Your task to perform on an android device: show emergency info Image 0: 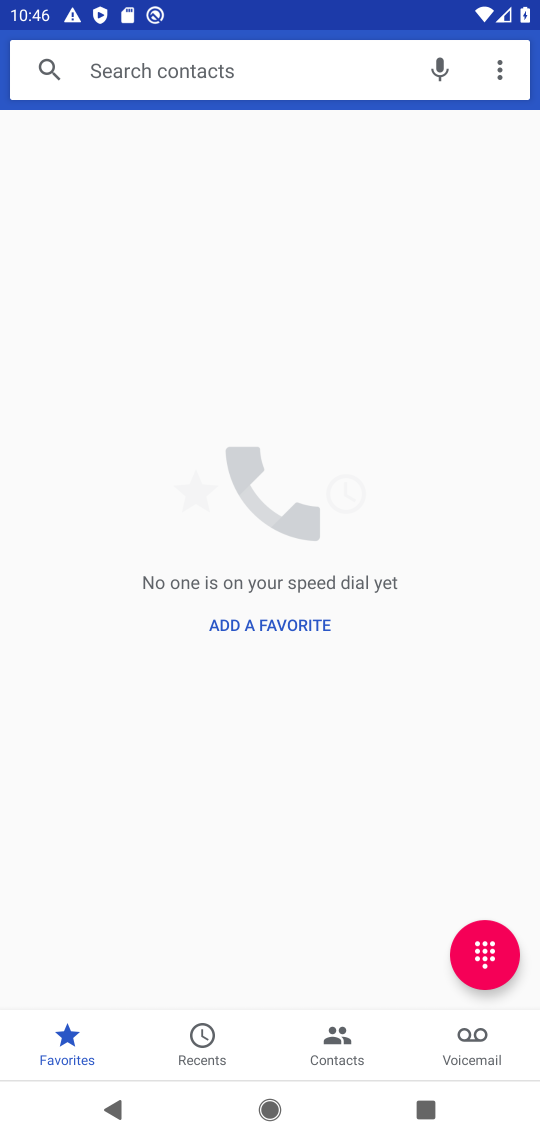
Step 0: press home button
Your task to perform on an android device: show emergency info Image 1: 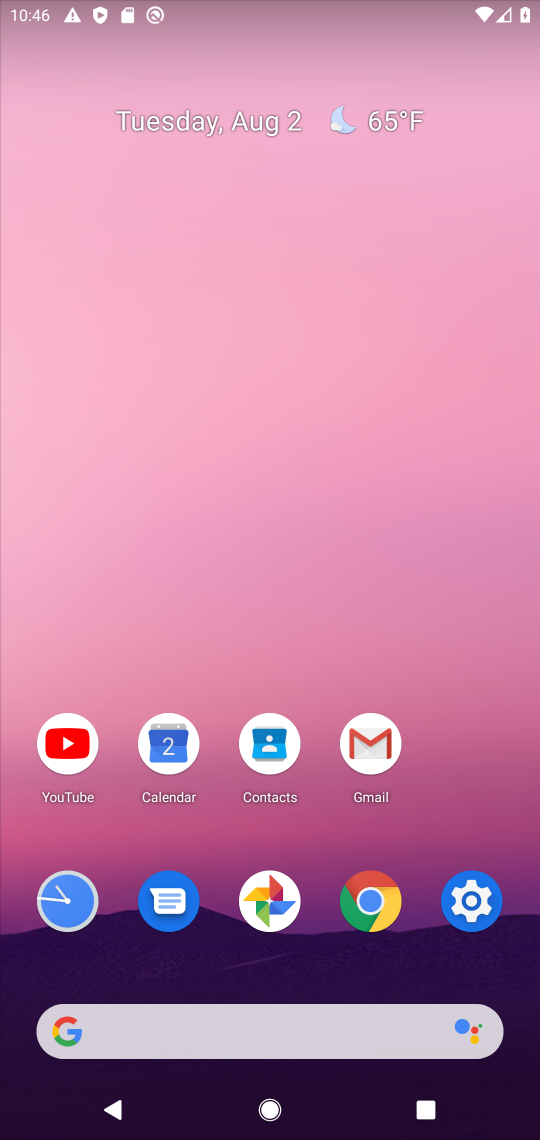
Step 1: click (470, 902)
Your task to perform on an android device: show emergency info Image 2: 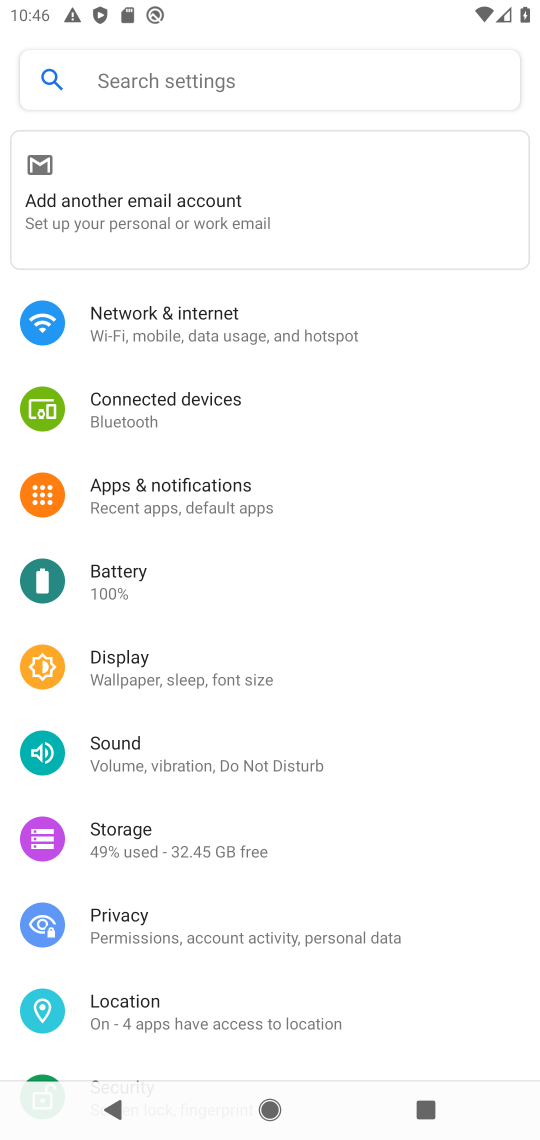
Step 2: drag from (300, 955) to (400, 128)
Your task to perform on an android device: show emergency info Image 3: 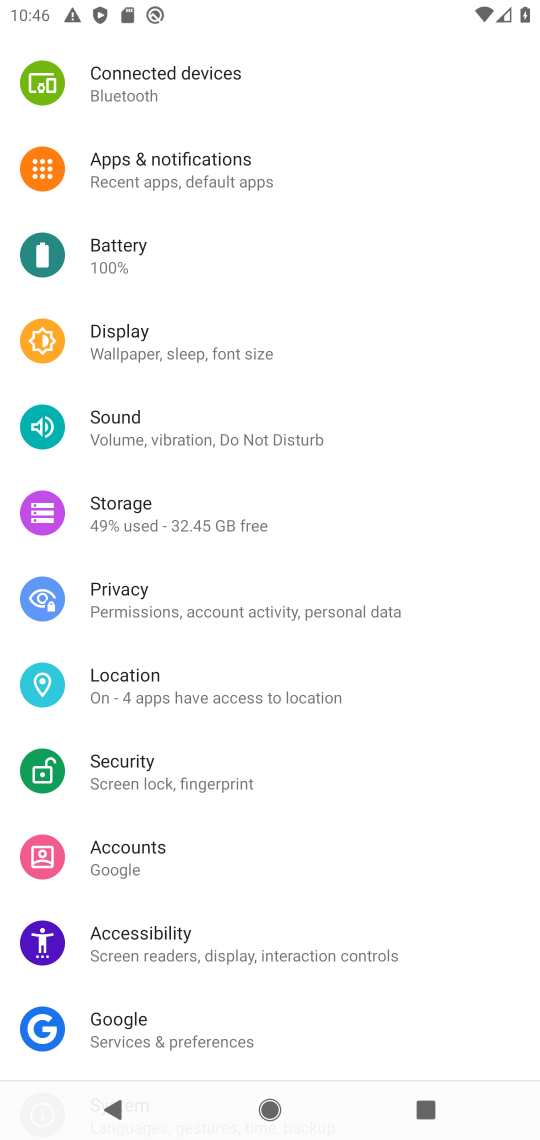
Step 3: drag from (349, 894) to (226, 81)
Your task to perform on an android device: show emergency info Image 4: 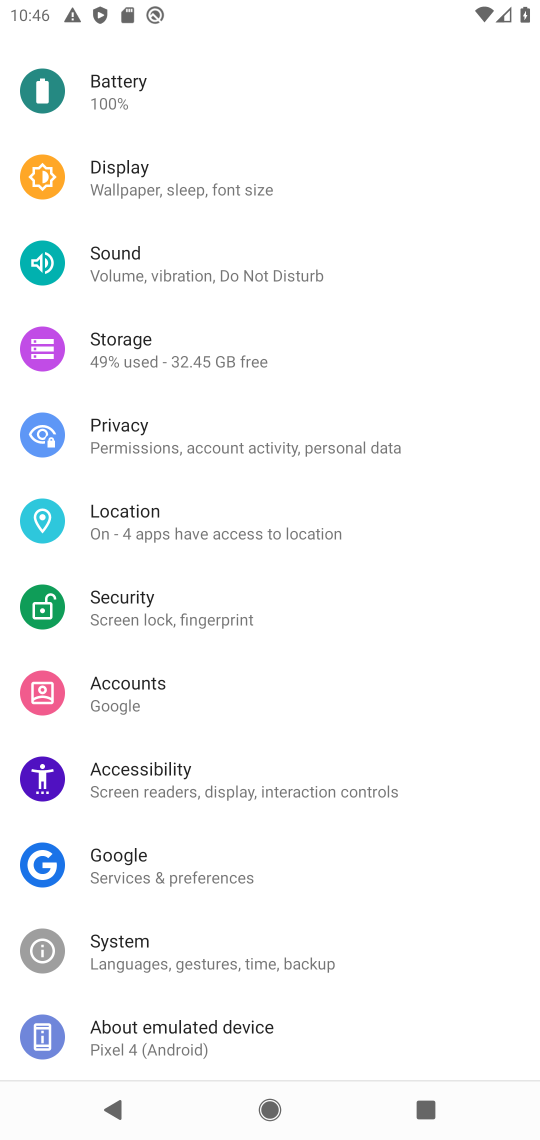
Step 4: click (184, 1026)
Your task to perform on an android device: show emergency info Image 5: 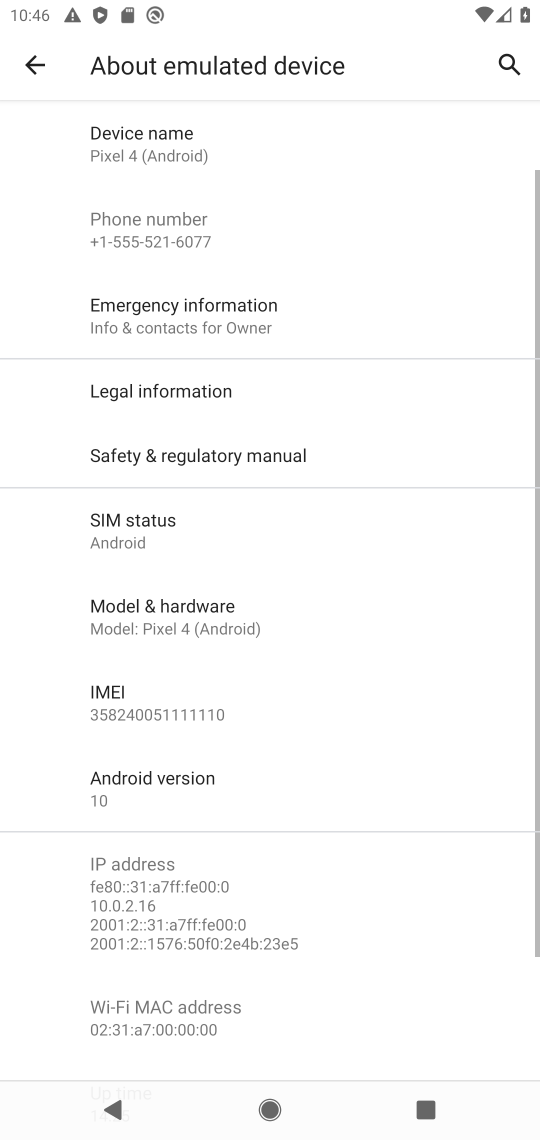
Step 5: click (168, 300)
Your task to perform on an android device: show emergency info Image 6: 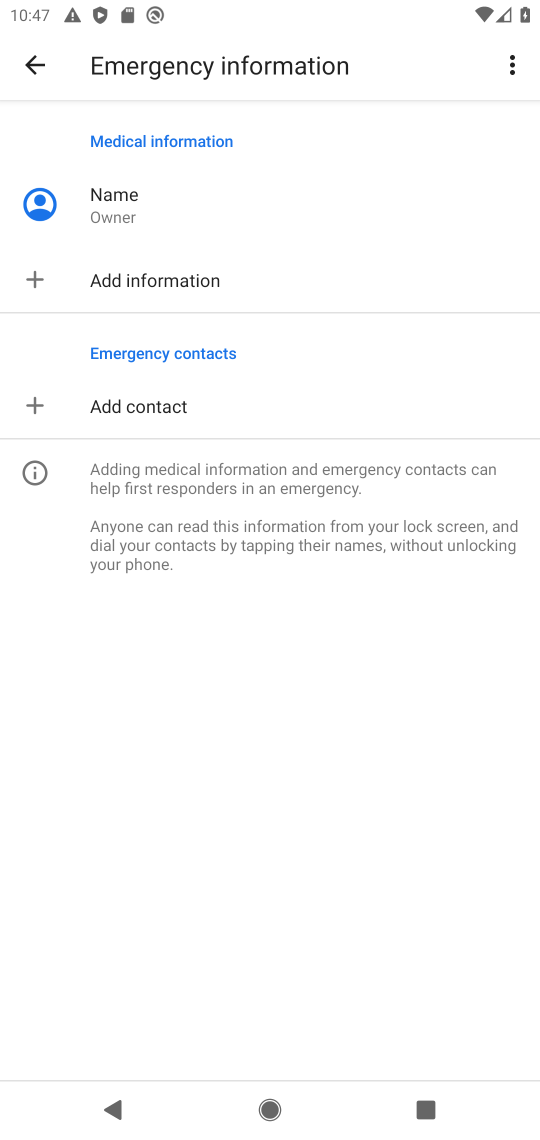
Step 6: task complete